Your task to perform on an android device: toggle priority inbox in the gmail app Image 0: 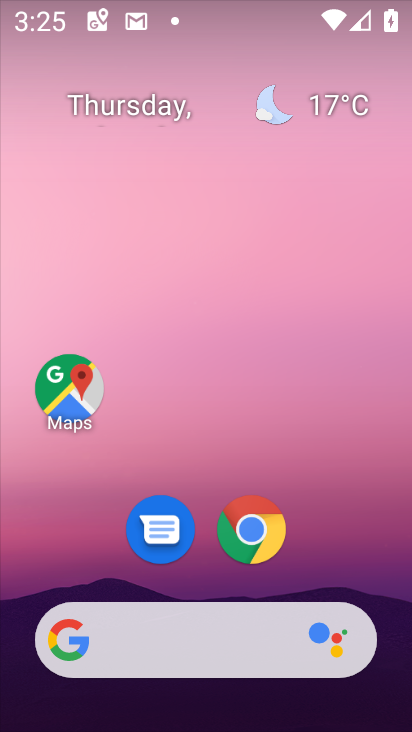
Step 0: drag from (168, 444) to (198, 120)
Your task to perform on an android device: toggle priority inbox in the gmail app Image 1: 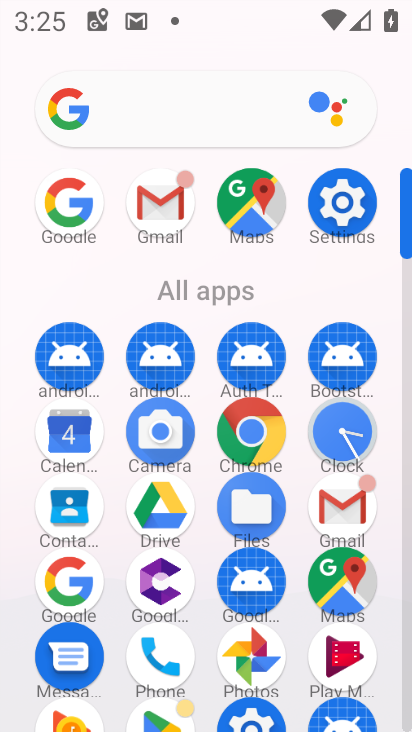
Step 1: click (165, 205)
Your task to perform on an android device: toggle priority inbox in the gmail app Image 2: 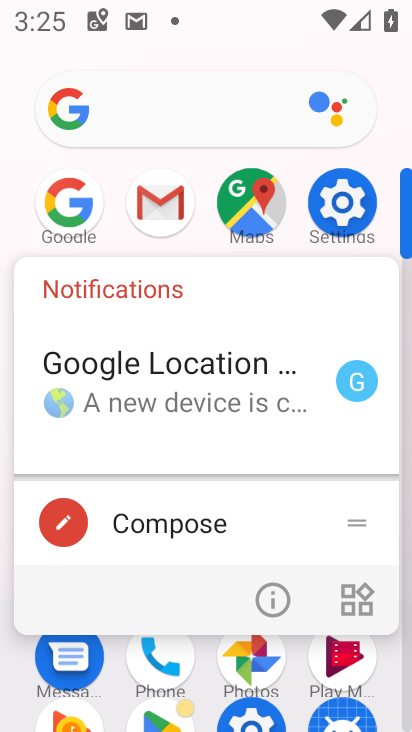
Step 2: click (166, 204)
Your task to perform on an android device: toggle priority inbox in the gmail app Image 3: 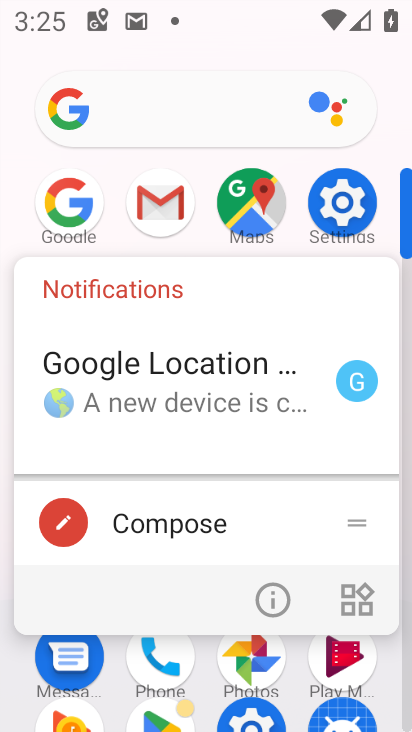
Step 3: click (166, 204)
Your task to perform on an android device: toggle priority inbox in the gmail app Image 4: 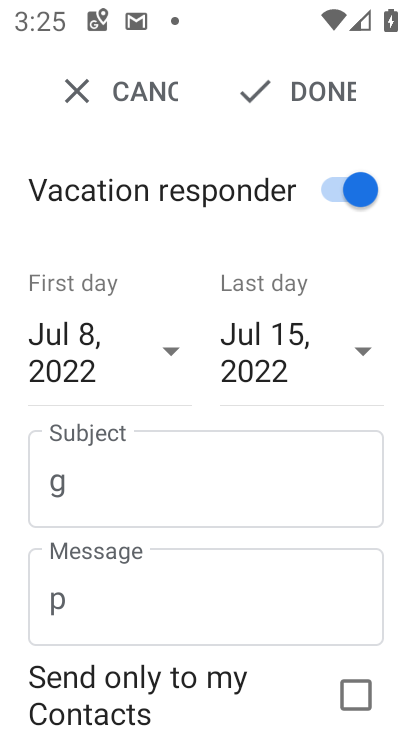
Step 4: click (74, 90)
Your task to perform on an android device: toggle priority inbox in the gmail app Image 5: 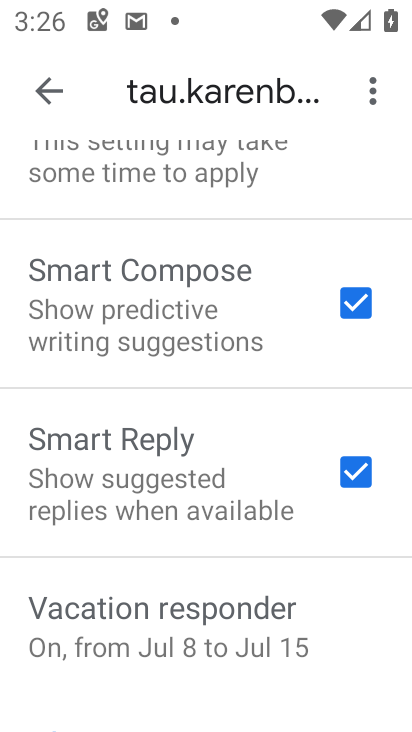
Step 5: drag from (124, 190) to (166, 643)
Your task to perform on an android device: toggle priority inbox in the gmail app Image 6: 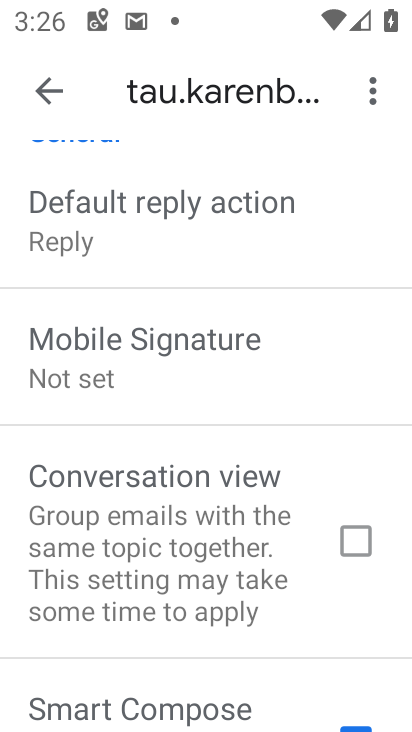
Step 6: drag from (162, 197) to (198, 573)
Your task to perform on an android device: toggle priority inbox in the gmail app Image 7: 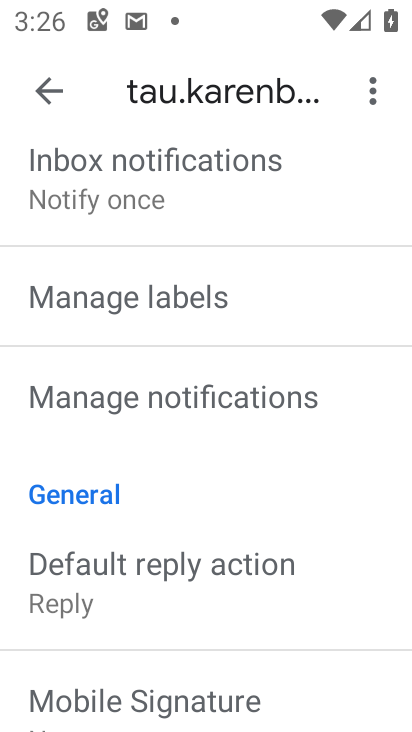
Step 7: drag from (146, 165) to (199, 592)
Your task to perform on an android device: toggle priority inbox in the gmail app Image 8: 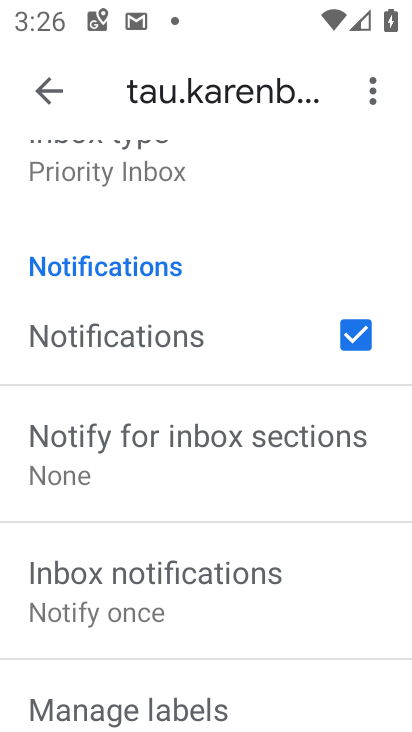
Step 8: drag from (136, 175) to (169, 497)
Your task to perform on an android device: toggle priority inbox in the gmail app Image 9: 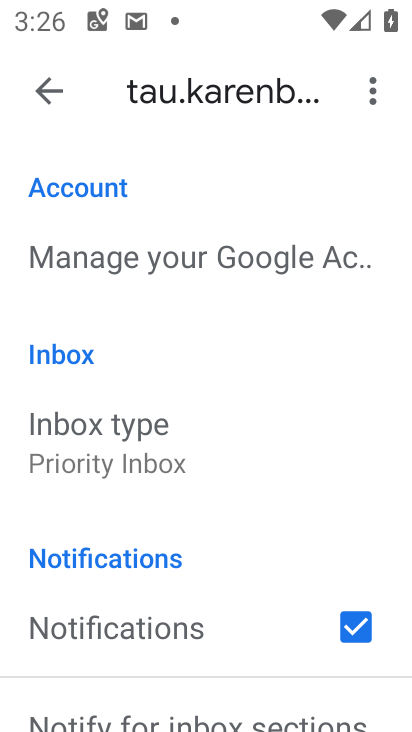
Step 9: click (137, 455)
Your task to perform on an android device: toggle priority inbox in the gmail app Image 10: 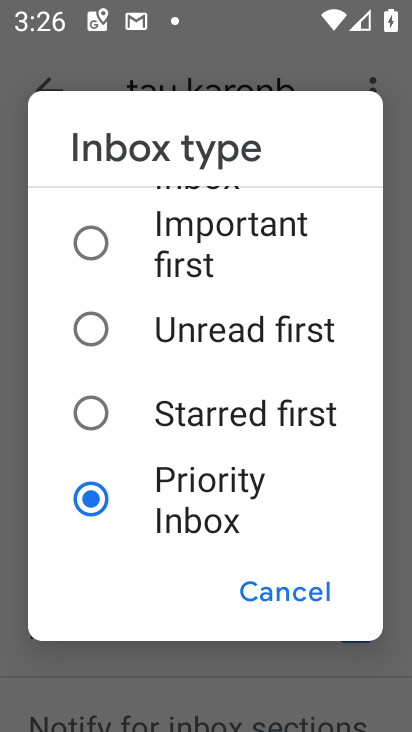
Step 10: click (151, 341)
Your task to perform on an android device: toggle priority inbox in the gmail app Image 11: 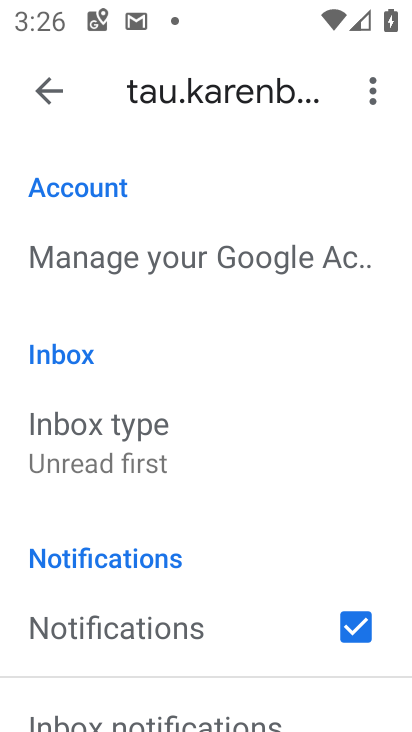
Step 11: task complete